Your task to perform on an android device: change the clock style Image 0: 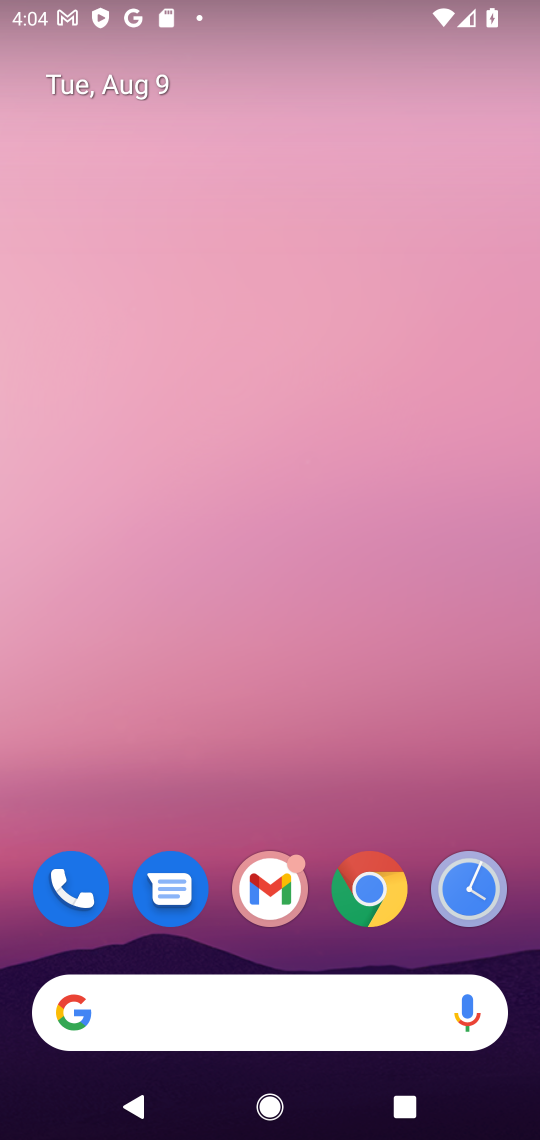
Step 0: click (471, 891)
Your task to perform on an android device: change the clock style Image 1: 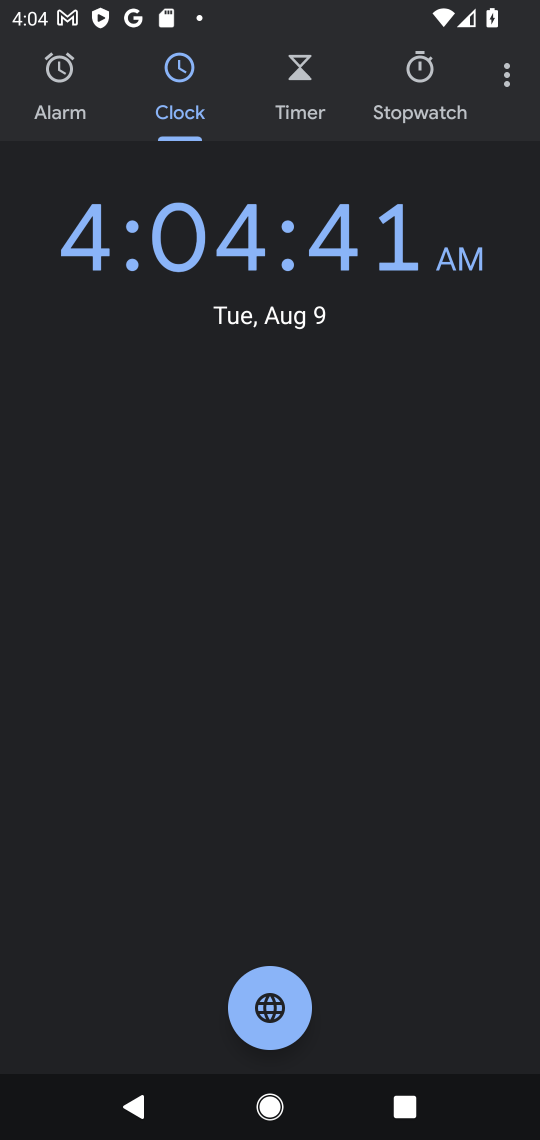
Step 1: click (513, 85)
Your task to perform on an android device: change the clock style Image 2: 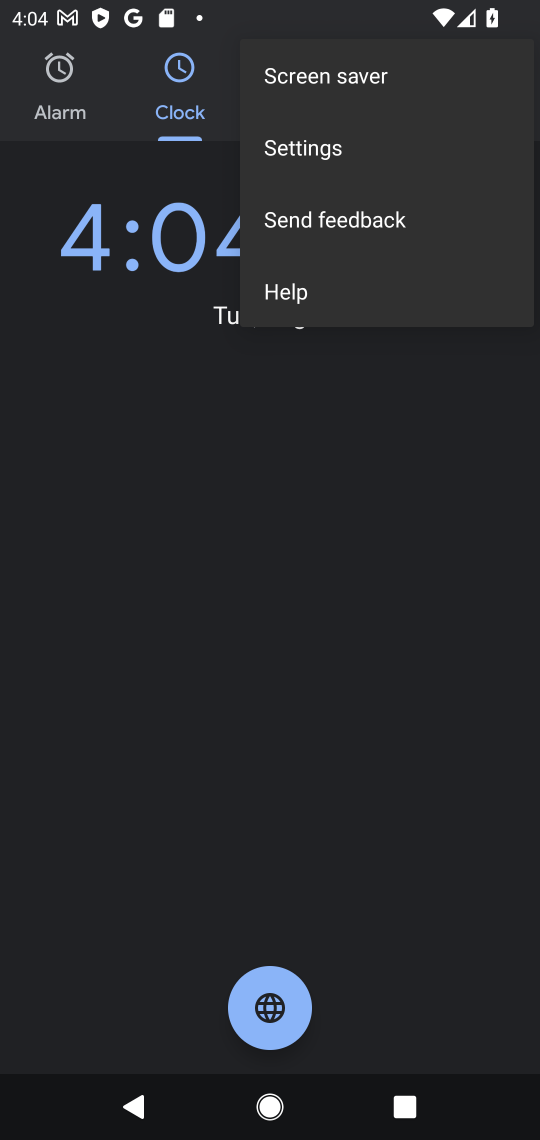
Step 2: click (410, 149)
Your task to perform on an android device: change the clock style Image 3: 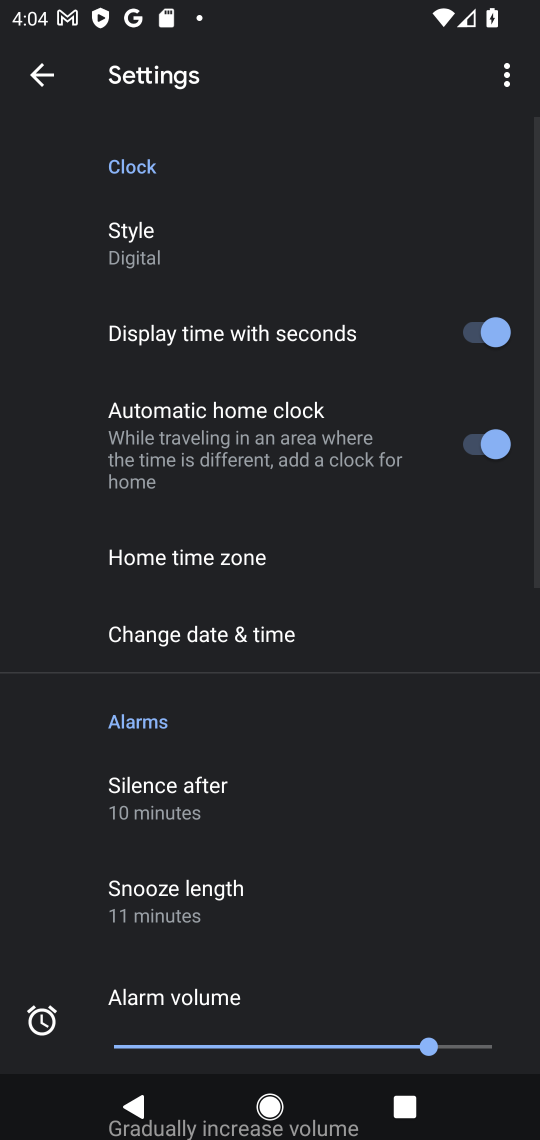
Step 3: click (181, 262)
Your task to perform on an android device: change the clock style Image 4: 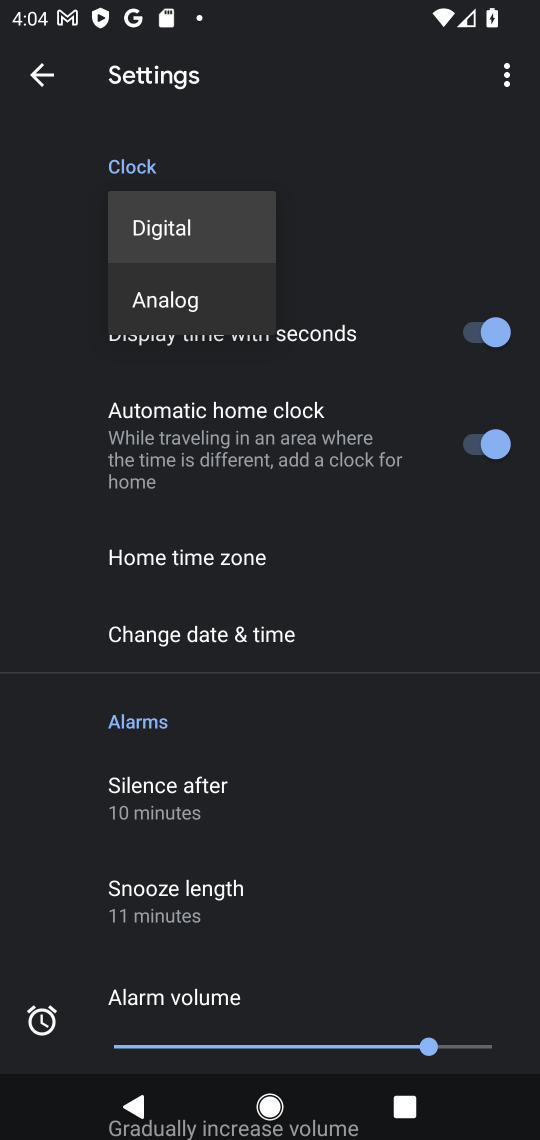
Step 4: click (179, 302)
Your task to perform on an android device: change the clock style Image 5: 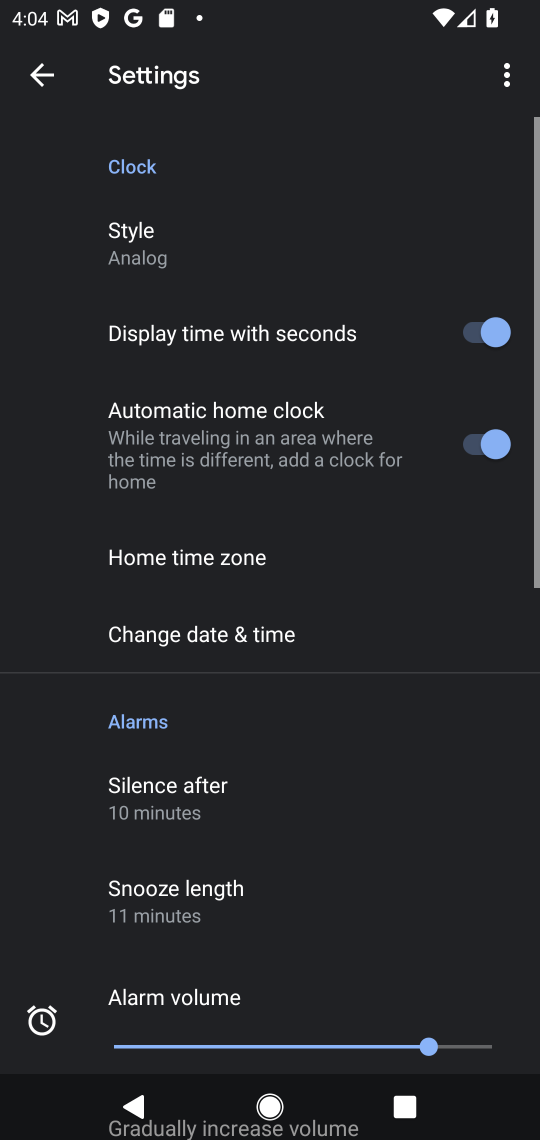
Step 5: click (51, 77)
Your task to perform on an android device: change the clock style Image 6: 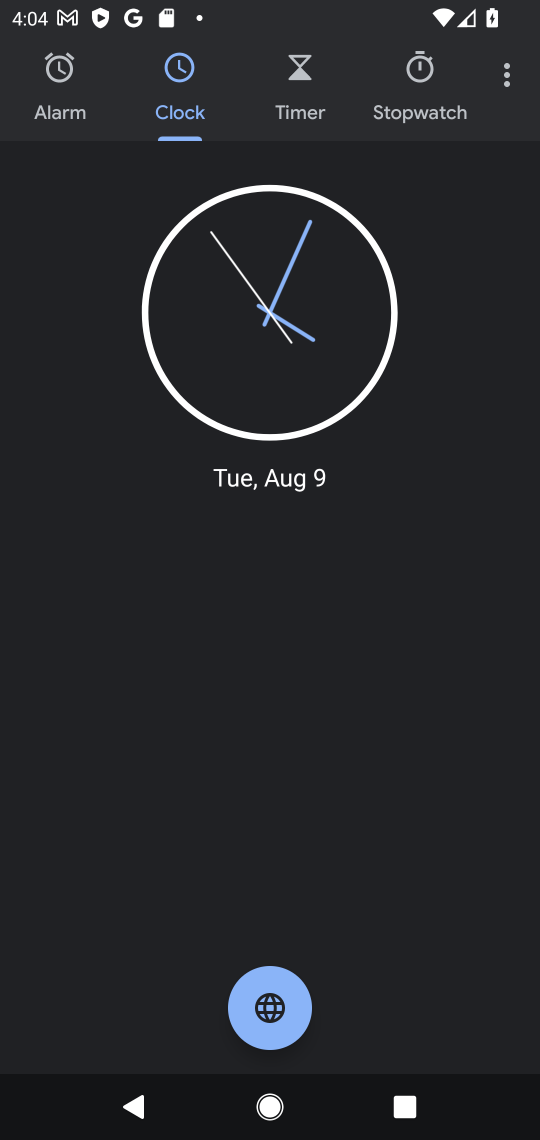
Step 6: task complete